Your task to perform on an android device: turn off location history Image 0: 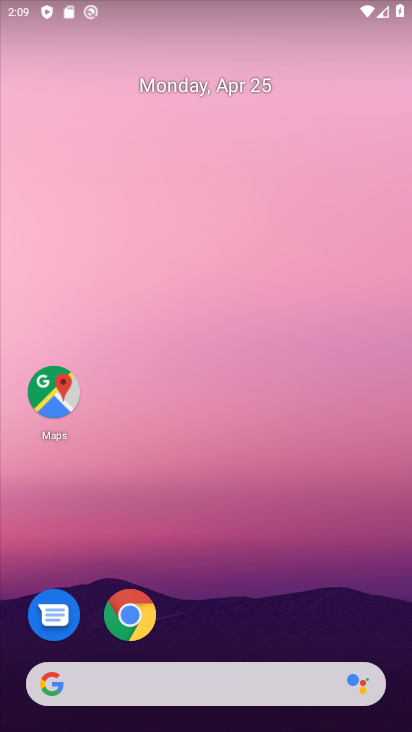
Step 0: drag from (218, 469) to (217, 101)
Your task to perform on an android device: turn off location history Image 1: 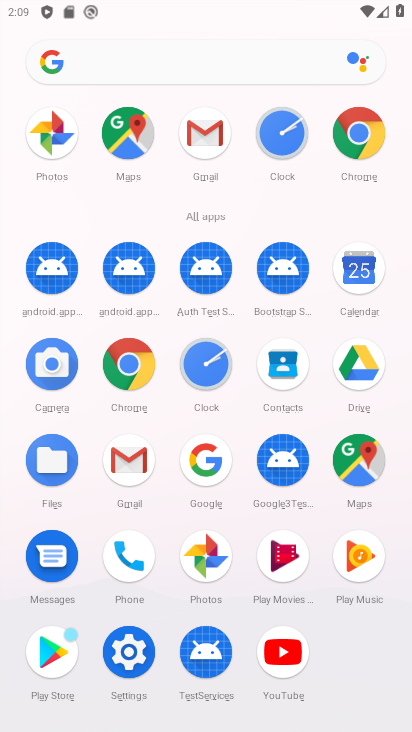
Step 1: click (130, 645)
Your task to perform on an android device: turn off location history Image 2: 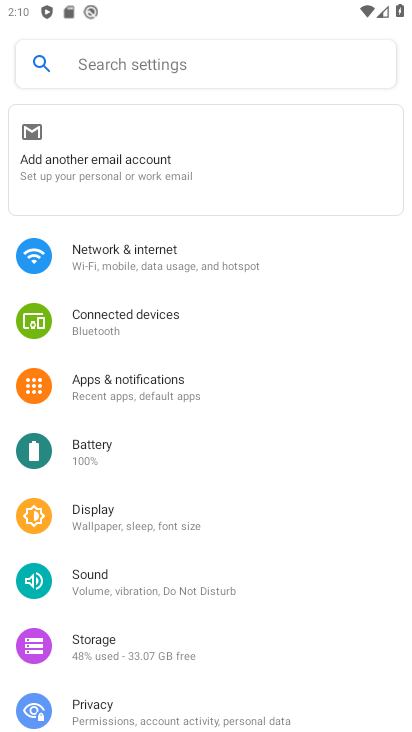
Step 2: drag from (119, 693) to (104, 352)
Your task to perform on an android device: turn off location history Image 3: 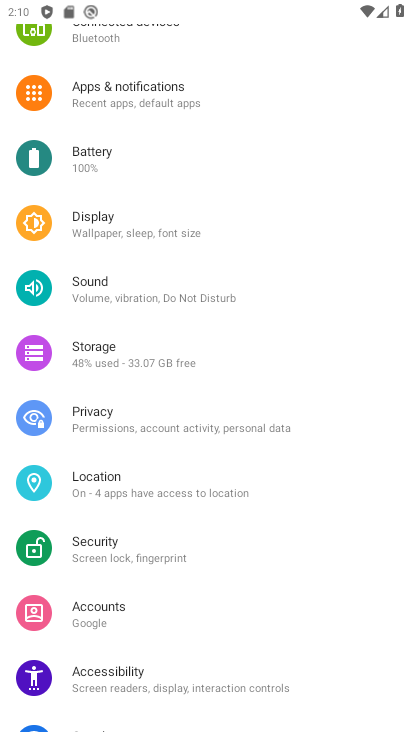
Step 3: click (104, 491)
Your task to perform on an android device: turn off location history Image 4: 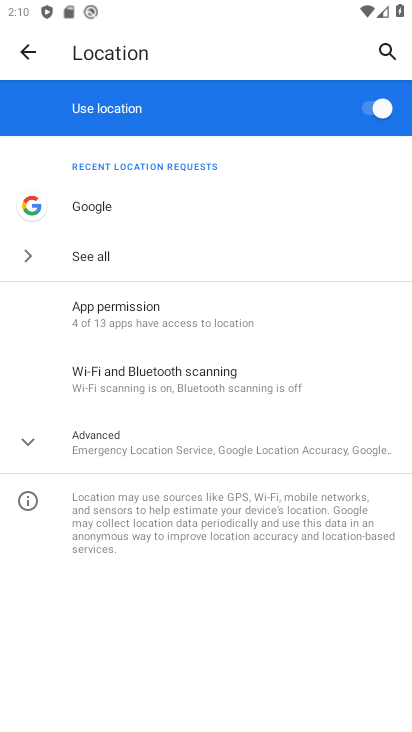
Step 4: click (116, 441)
Your task to perform on an android device: turn off location history Image 5: 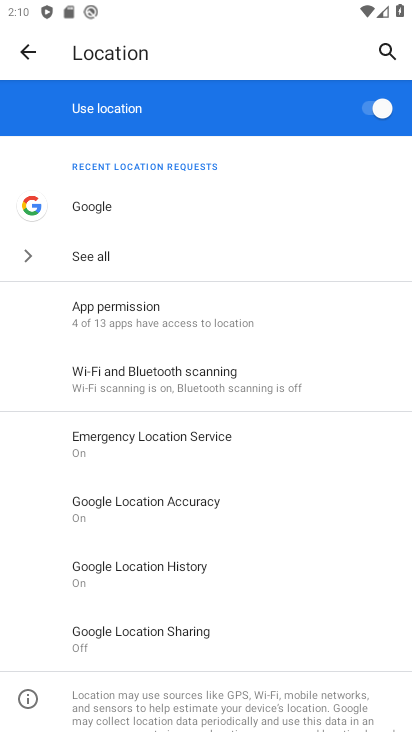
Step 5: click (169, 565)
Your task to perform on an android device: turn off location history Image 6: 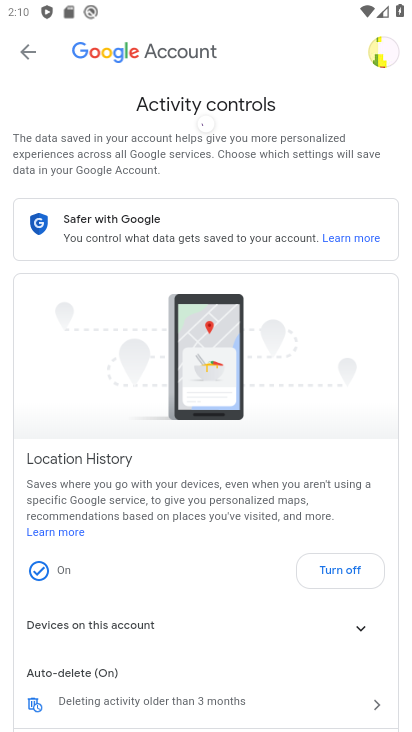
Step 6: click (342, 568)
Your task to perform on an android device: turn off location history Image 7: 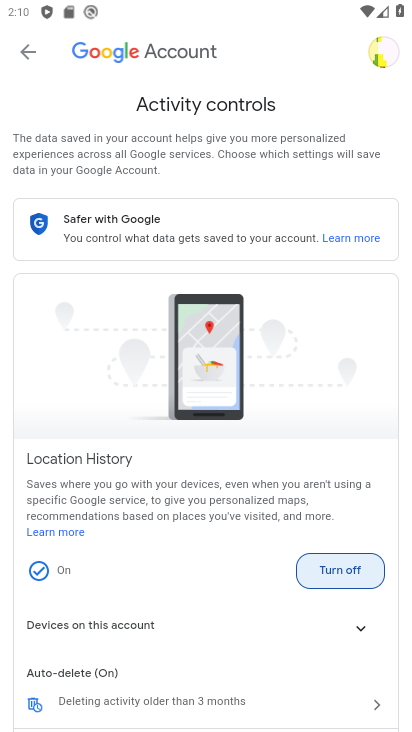
Step 7: click (341, 571)
Your task to perform on an android device: turn off location history Image 8: 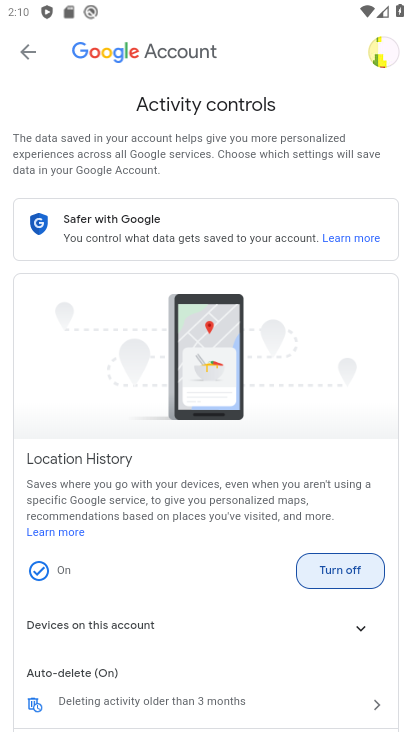
Step 8: click (339, 572)
Your task to perform on an android device: turn off location history Image 9: 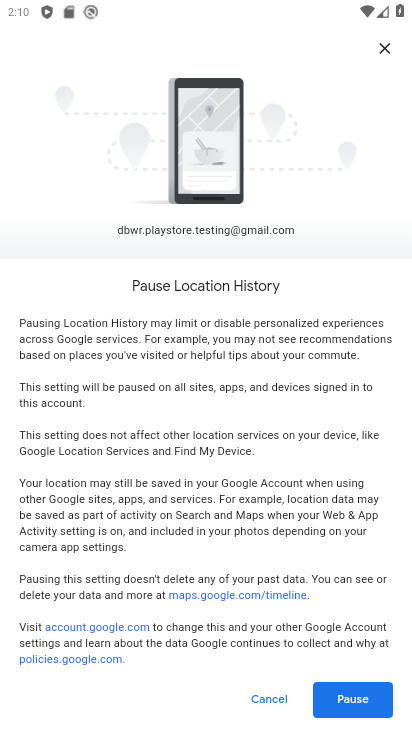
Step 9: click (354, 699)
Your task to perform on an android device: turn off location history Image 10: 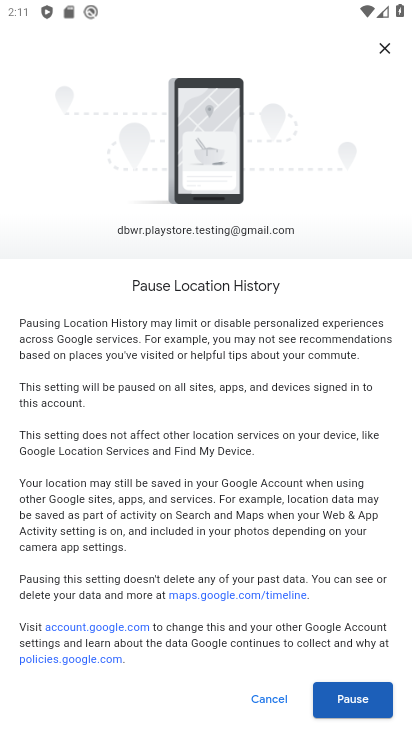
Step 10: click (354, 699)
Your task to perform on an android device: turn off location history Image 11: 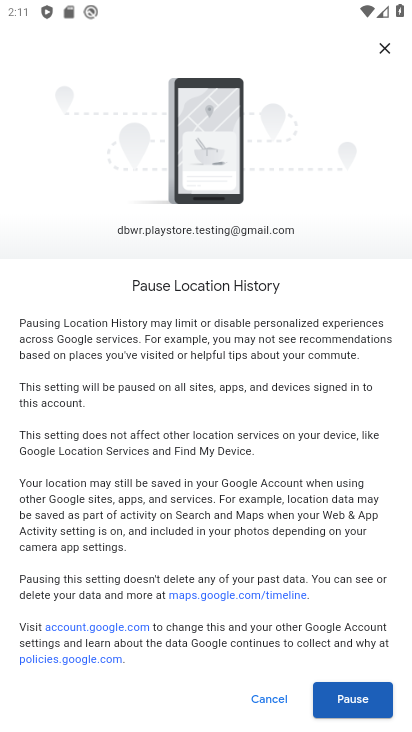
Step 11: click (352, 702)
Your task to perform on an android device: turn off location history Image 12: 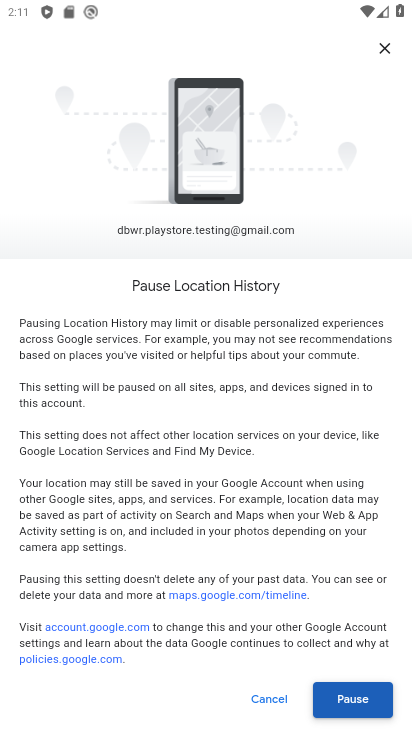
Step 12: click (352, 702)
Your task to perform on an android device: turn off location history Image 13: 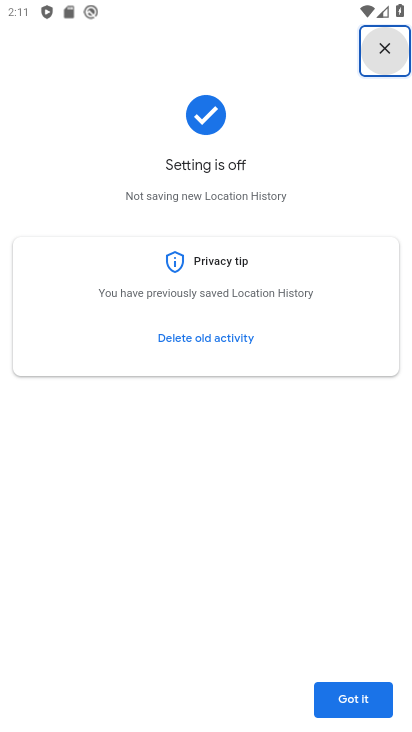
Step 13: task complete